Your task to perform on an android device: delete the emails in spam in the gmail app Image 0: 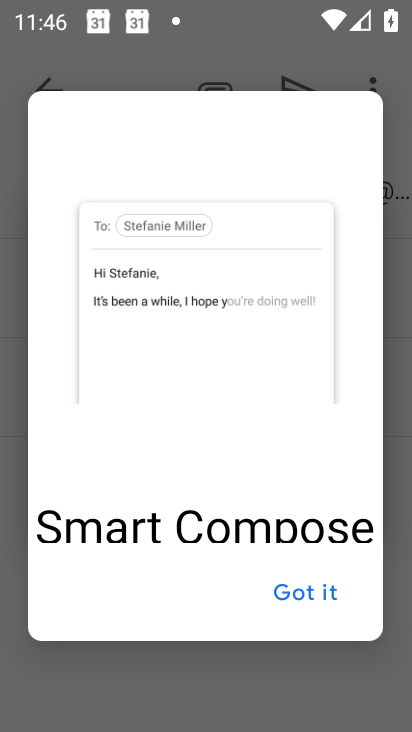
Step 0: press home button
Your task to perform on an android device: delete the emails in spam in the gmail app Image 1: 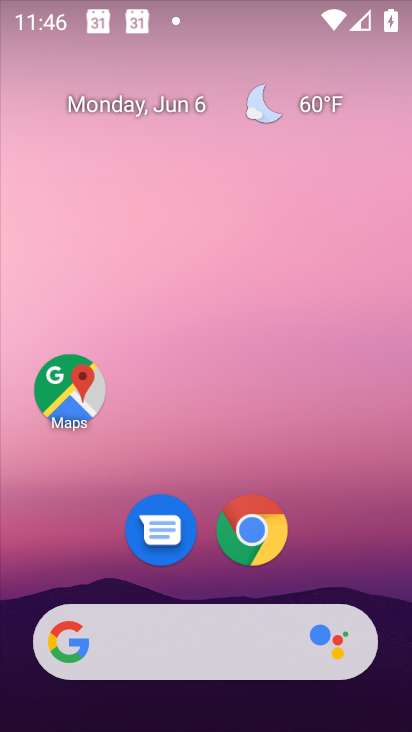
Step 1: drag from (315, 472) to (130, 26)
Your task to perform on an android device: delete the emails in spam in the gmail app Image 2: 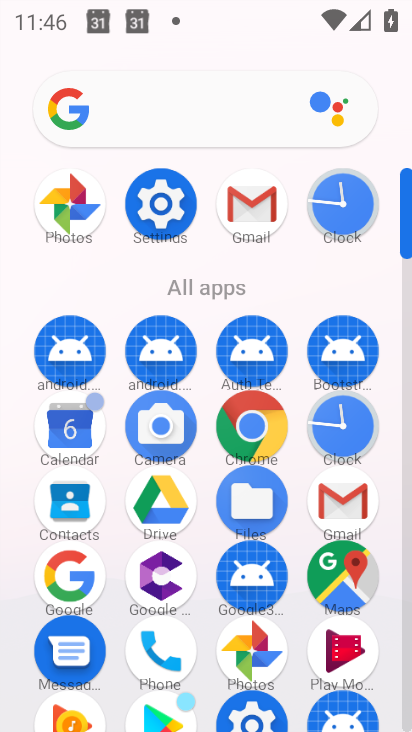
Step 2: click (257, 221)
Your task to perform on an android device: delete the emails in spam in the gmail app Image 3: 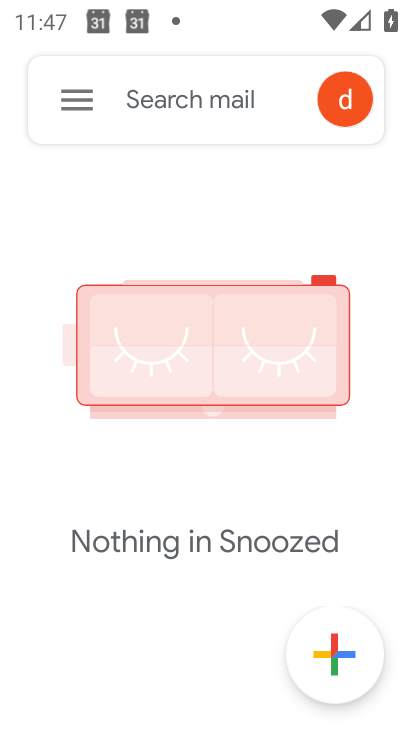
Step 3: click (76, 89)
Your task to perform on an android device: delete the emails in spam in the gmail app Image 4: 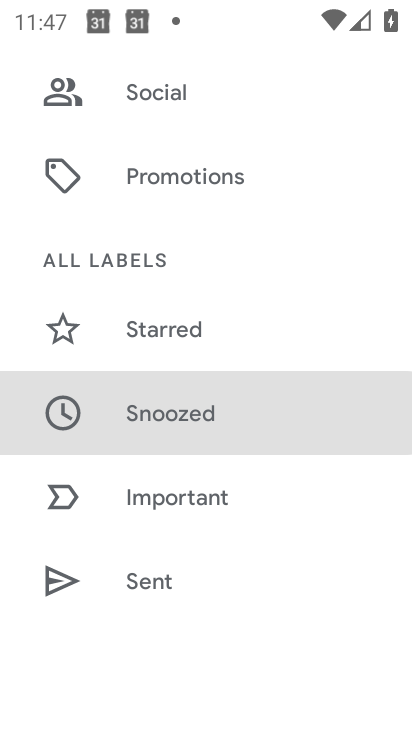
Step 4: drag from (225, 239) to (242, 561)
Your task to perform on an android device: delete the emails in spam in the gmail app Image 5: 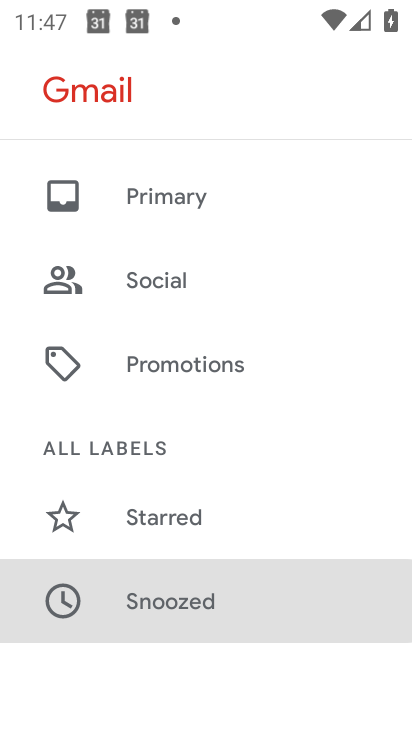
Step 5: click (203, 201)
Your task to perform on an android device: delete the emails in spam in the gmail app Image 6: 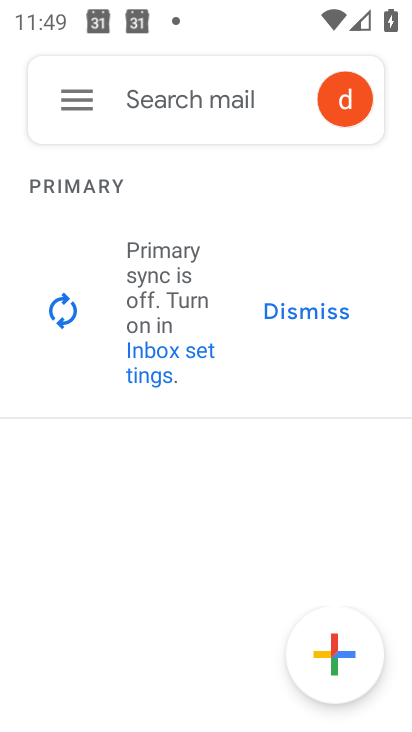
Step 6: task complete